Your task to perform on an android device: Open calendar and show me the fourth week of next month Image 0: 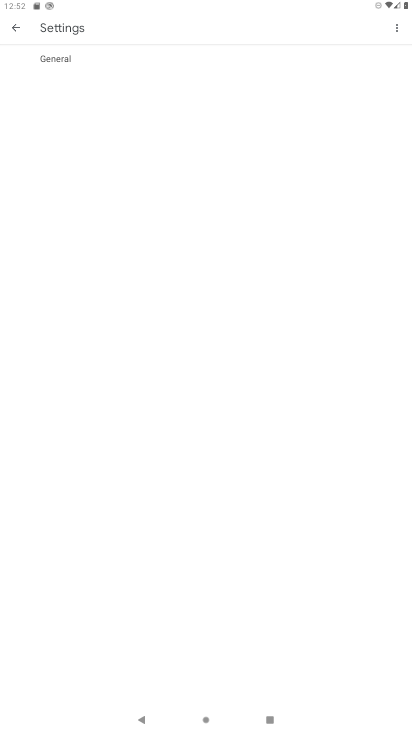
Step 0: press home button
Your task to perform on an android device: Open calendar and show me the fourth week of next month Image 1: 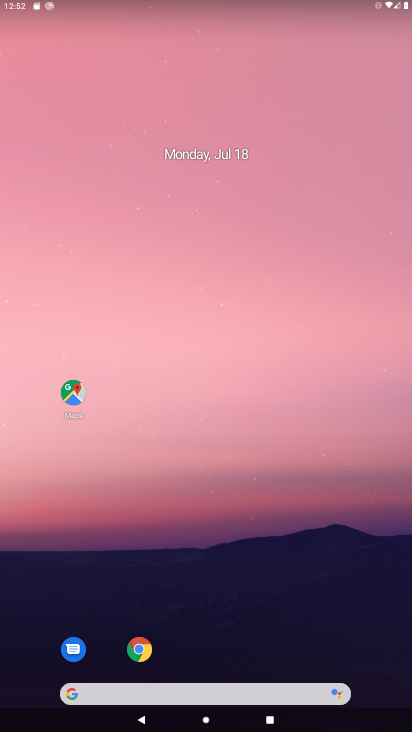
Step 1: drag from (38, 634) to (171, 145)
Your task to perform on an android device: Open calendar and show me the fourth week of next month Image 2: 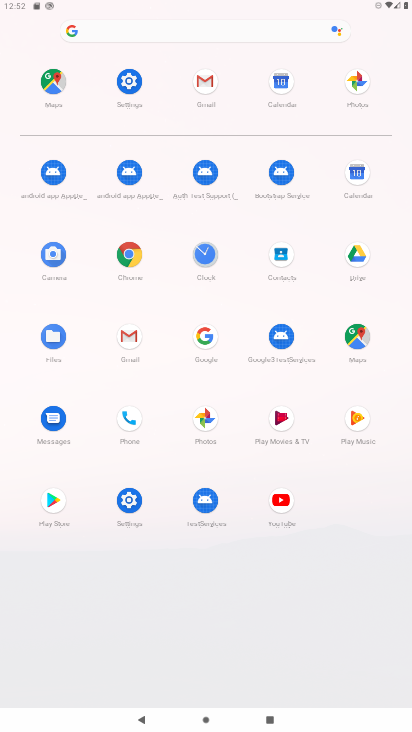
Step 2: click (350, 187)
Your task to perform on an android device: Open calendar and show me the fourth week of next month Image 3: 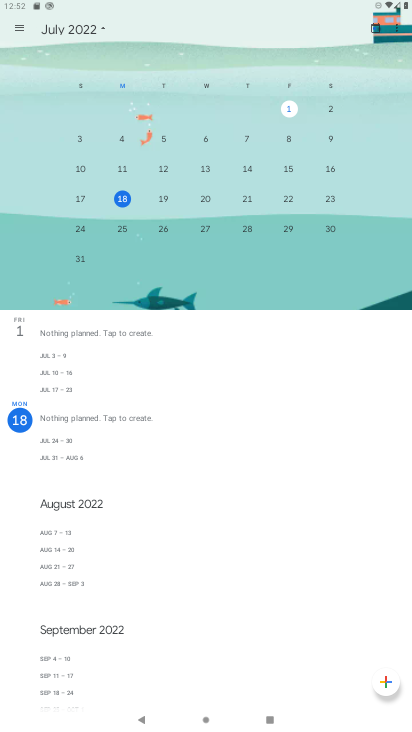
Step 3: drag from (383, 143) to (6, 224)
Your task to perform on an android device: Open calendar and show me the fourth week of next month Image 4: 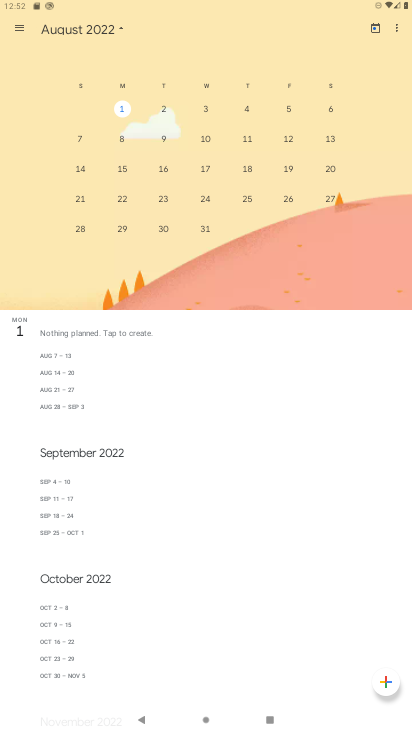
Step 4: click (120, 196)
Your task to perform on an android device: Open calendar and show me the fourth week of next month Image 5: 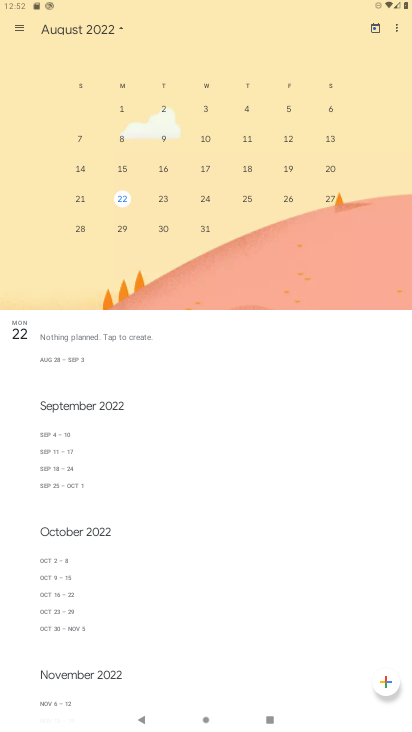
Step 5: task complete